Your task to perform on an android device: What is the average speed of a car? Image 0: 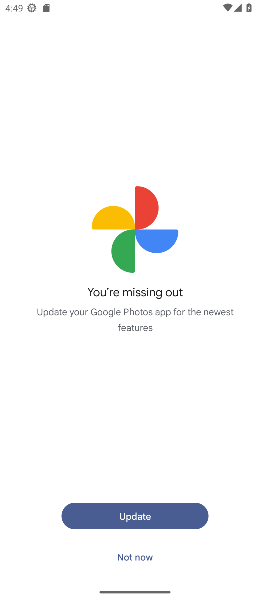
Step 0: press home button
Your task to perform on an android device: What is the average speed of a car? Image 1: 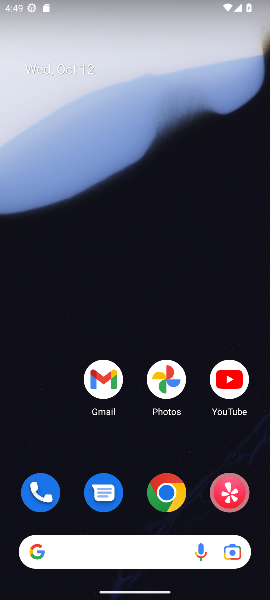
Step 1: drag from (178, 599) to (266, 587)
Your task to perform on an android device: What is the average speed of a car? Image 2: 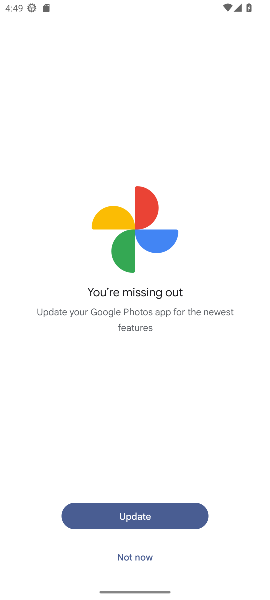
Step 2: press home button
Your task to perform on an android device: What is the average speed of a car? Image 3: 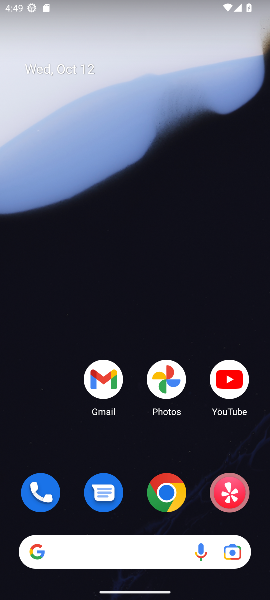
Step 3: click (158, 493)
Your task to perform on an android device: What is the average speed of a car? Image 4: 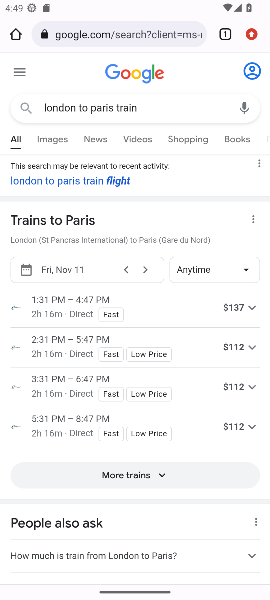
Step 4: click (140, 105)
Your task to perform on an android device: What is the average speed of a car? Image 5: 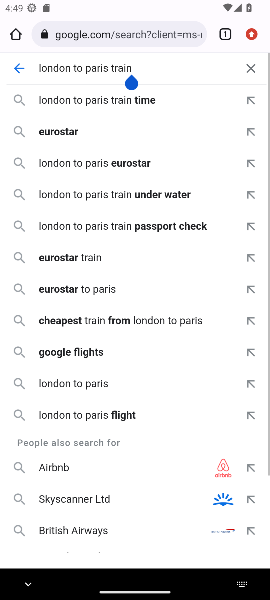
Step 5: click (253, 69)
Your task to perform on an android device: What is the average speed of a car? Image 6: 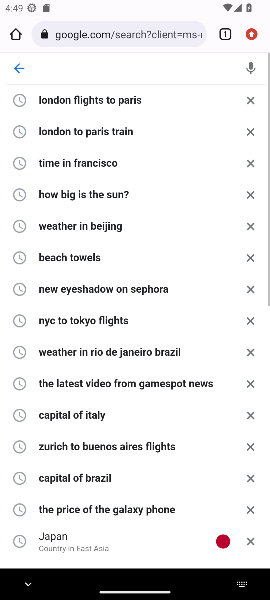
Step 6: type "What is the average speed of a car?"
Your task to perform on an android device: What is the average speed of a car? Image 7: 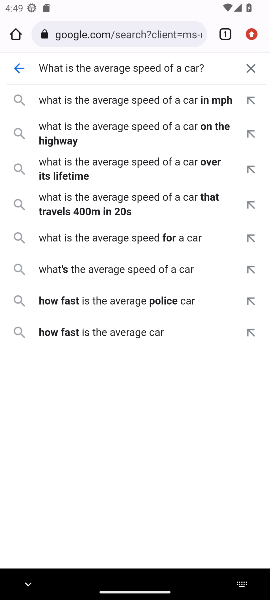
Step 7: click (104, 108)
Your task to perform on an android device: What is the average speed of a car? Image 8: 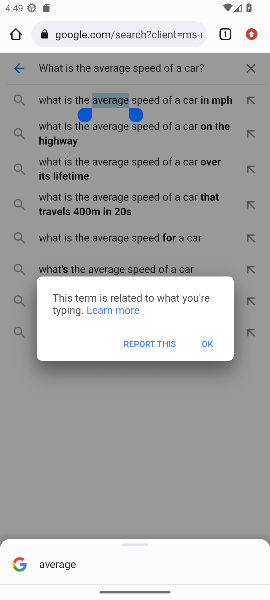
Step 8: click (182, 105)
Your task to perform on an android device: What is the average speed of a car? Image 9: 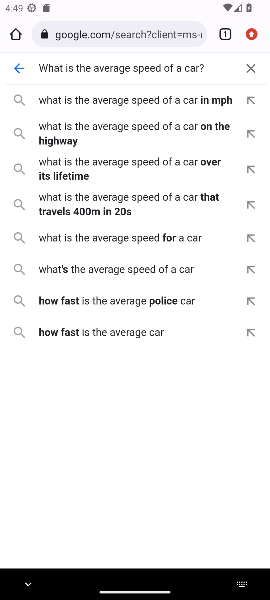
Step 9: click (63, 98)
Your task to perform on an android device: What is the average speed of a car? Image 10: 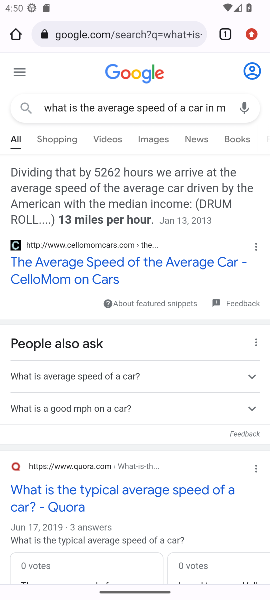
Step 10: task complete